Your task to perform on an android device: change the clock display to analog Image 0: 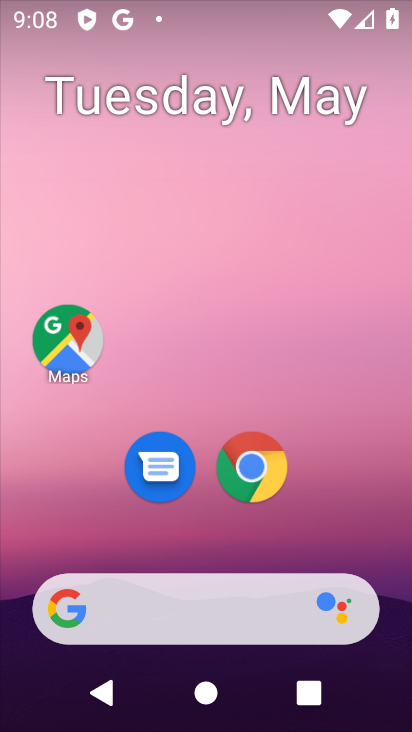
Step 0: drag from (345, 511) to (281, 67)
Your task to perform on an android device: change the clock display to analog Image 1: 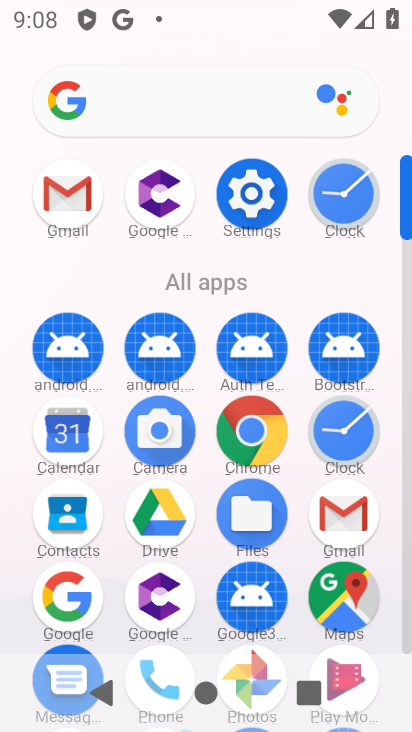
Step 1: drag from (15, 611) to (19, 281)
Your task to perform on an android device: change the clock display to analog Image 2: 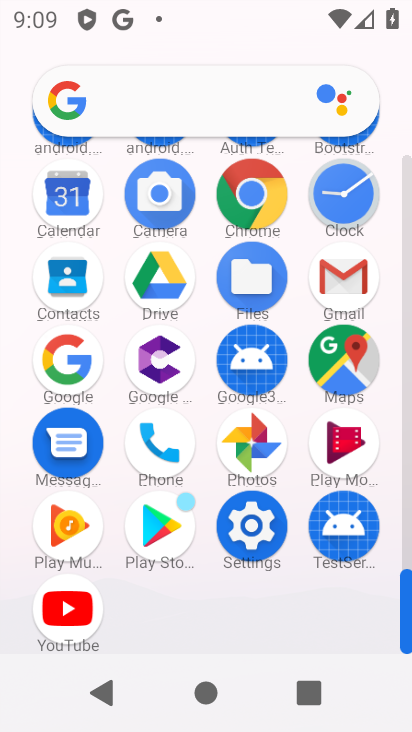
Step 2: click (346, 192)
Your task to perform on an android device: change the clock display to analog Image 3: 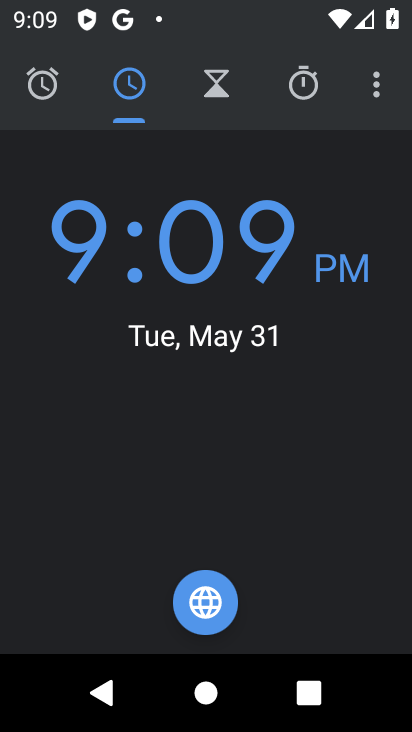
Step 3: drag from (375, 85) to (284, 157)
Your task to perform on an android device: change the clock display to analog Image 4: 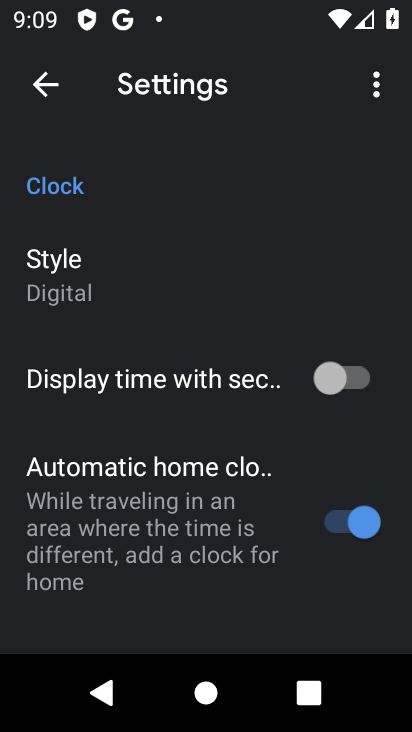
Step 4: drag from (191, 489) to (215, 216)
Your task to perform on an android device: change the clock display to analog Image 5: 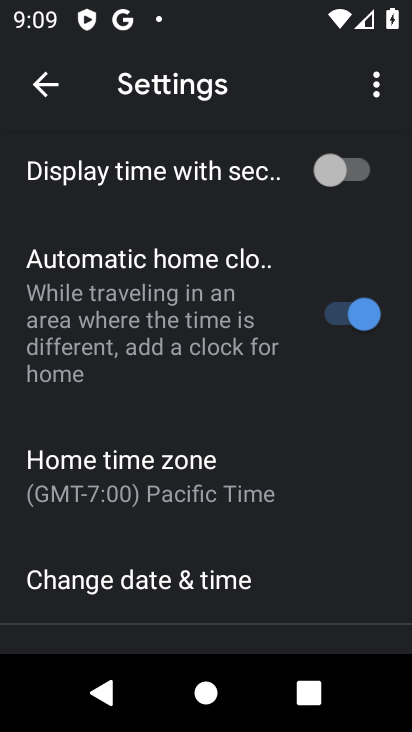
Step 5: drag from (174, 463) to (190, 146)
Your task to perform on an android device: change the clock display to analog Image 6: 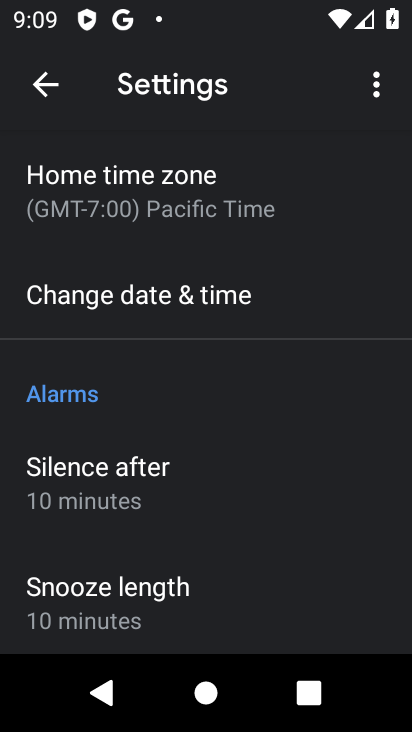
Step 6: drag from (228, 511) to (227, 167)
Your task to perform on an android device: change the clock display to analog Image 7: 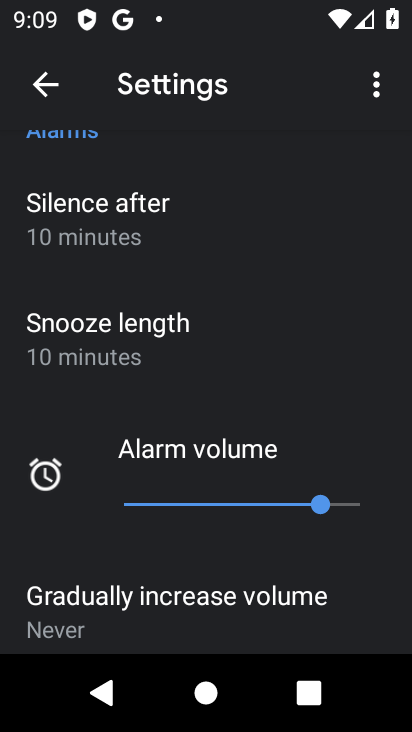
Step 7: drag from (221, 196) to (210, 660)
Your task to perform on an android device: change the clock display to analog Image 8: 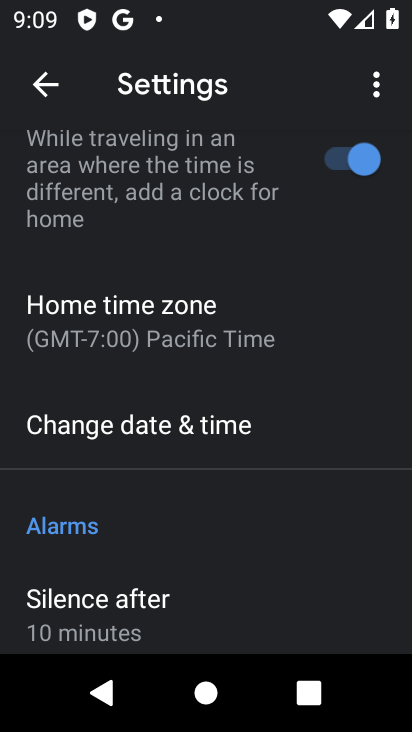
Step 8: drag from (229, 188) to (224, 592)
Your task to perform on an android device: change the clock display to analog Image 9: 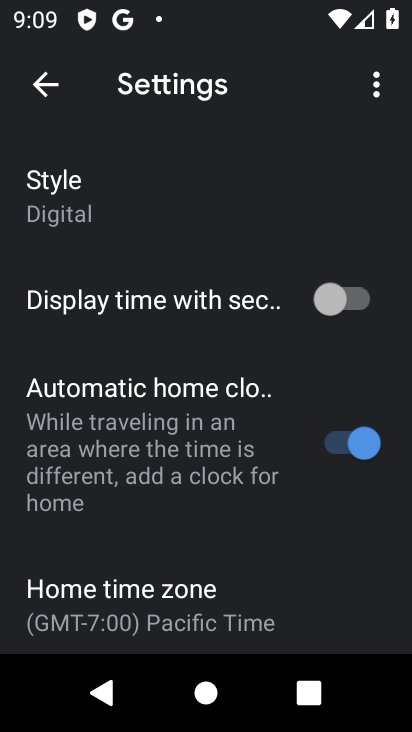
Step 9: drag from (154, 172) to (155, 510)
Your task to perform on an android device: change the clock display to analog Image 10: 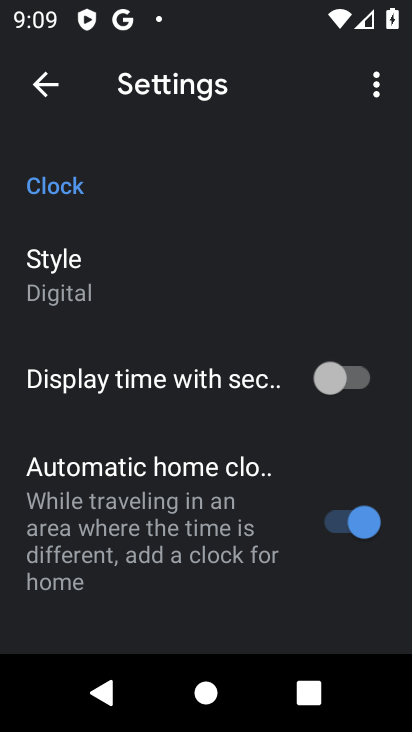
Step 10: click (89, 266)
Your task to perform on an android device: change the clock display to analog Image 11: 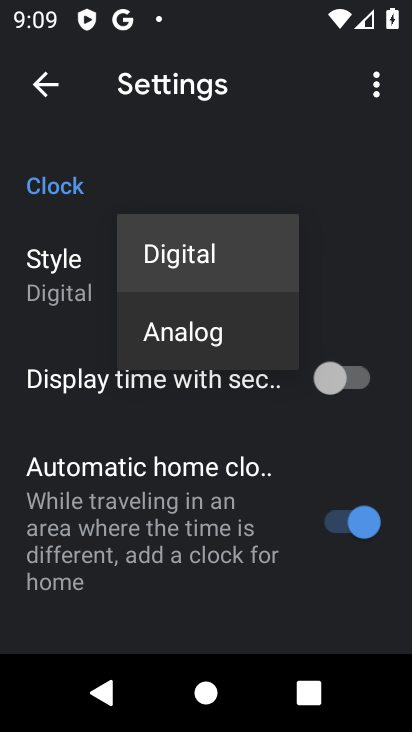
Step 11: click (151, 322)
Your task to perform on an android device: change the clock display to analog Image 12: 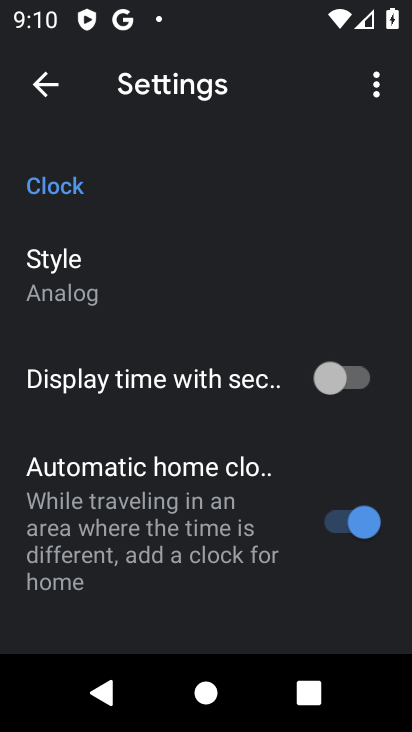
Step 12: task complete